Your task to perform on an android device: What is the recent news? Image 0: 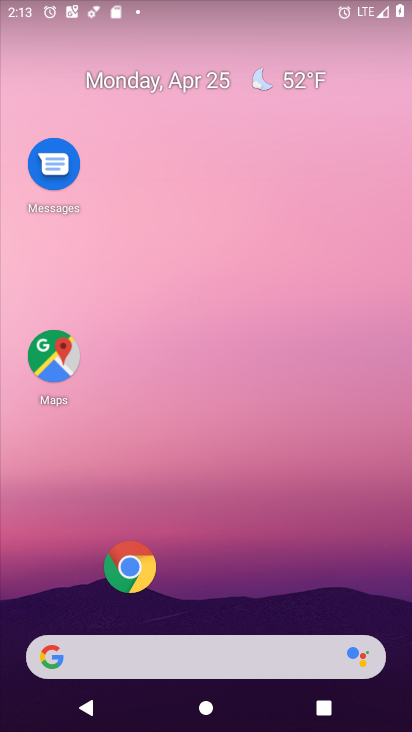
Step 0: drag from (311, 653) to (328, 45)
Your task to perform on an android device: What is the recent news? Image 1: 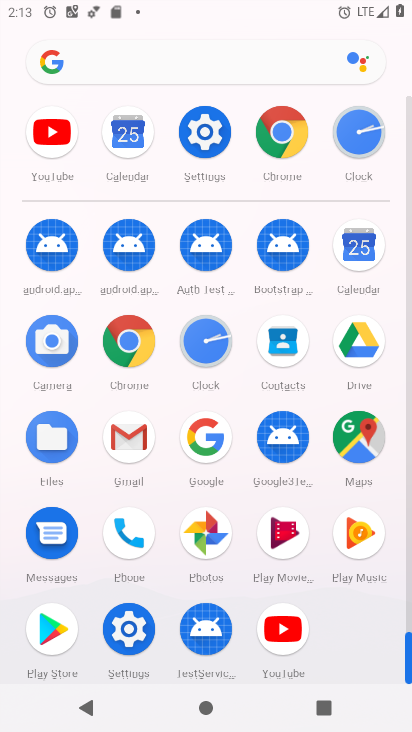
Step 1: click (185, 456)
Your task to perform on an android device: What is the recent news? Image 2: 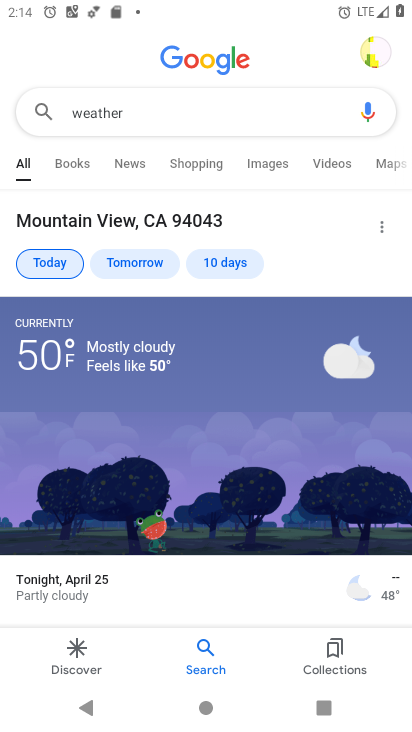
Step 2: click (130, 169)
Your task to perform on an android device: What is the recent news? Image 3: 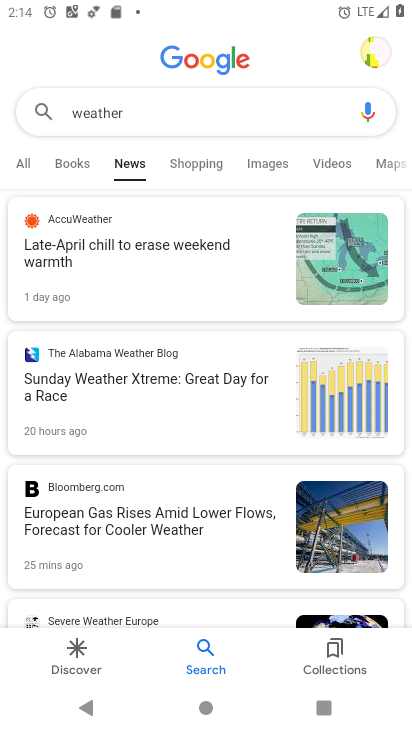
Step 3: task complete